Your task to perform on an android device: Search for duracell triple a on costco, select the first entry, add it to the cart, then select checkout. Image 0: 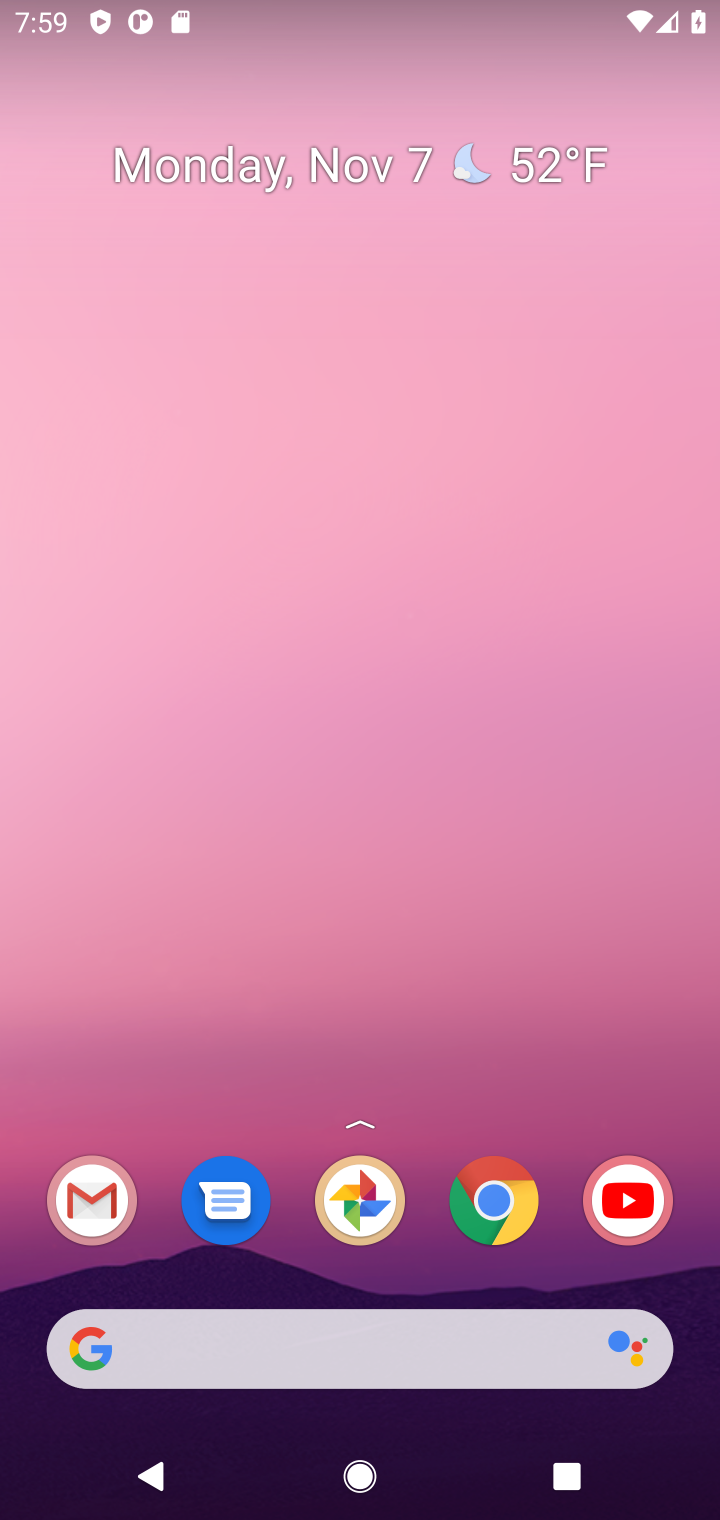
Step 0: click (494, 1223)
Your task to perform on an android device: Search for duracell triple a on costco, select the first entry, add it to the cart, then select checkout. Image 1: 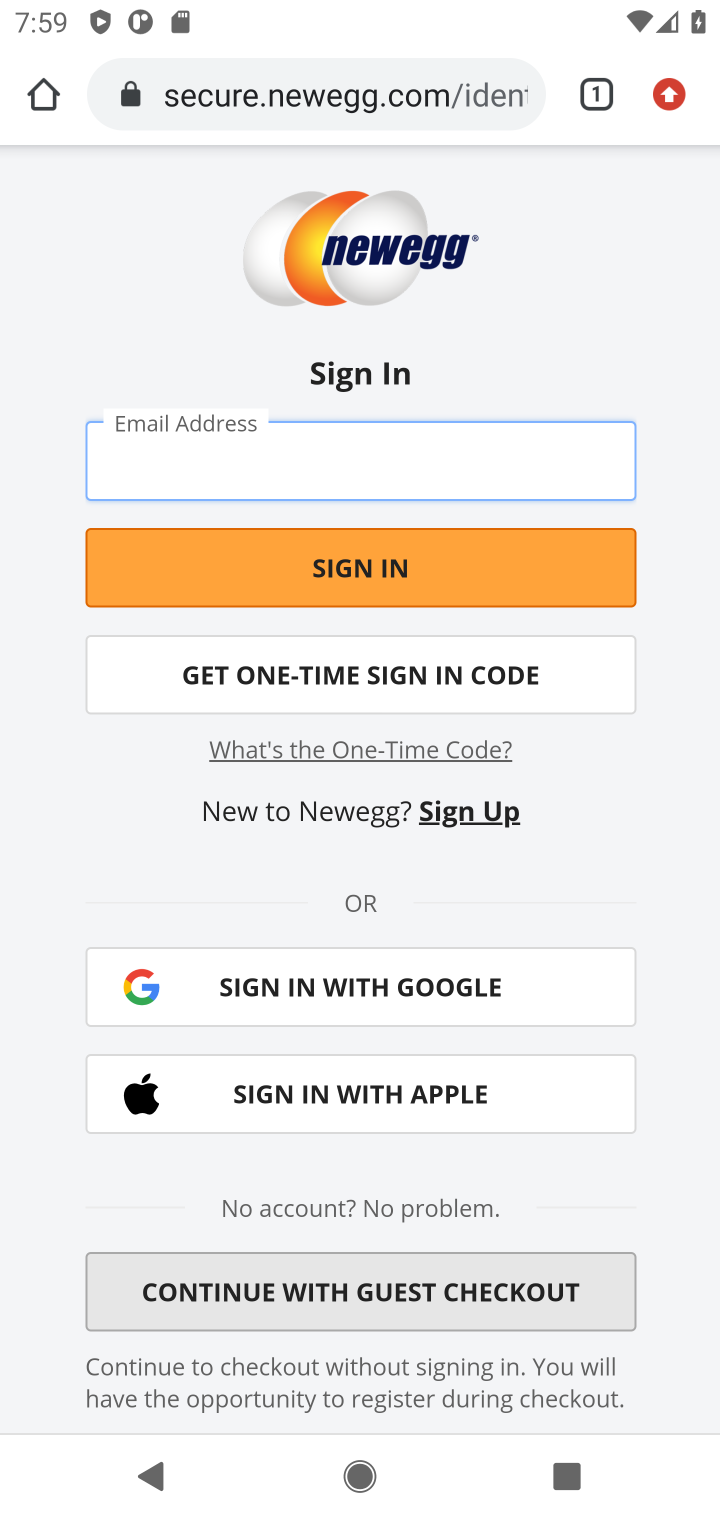
Step 1: click (375, 95)
Your task to perform on an android device: Search for duracell triple a on costco, select the first entry, add it to the cart, then select checkout. Image 2: 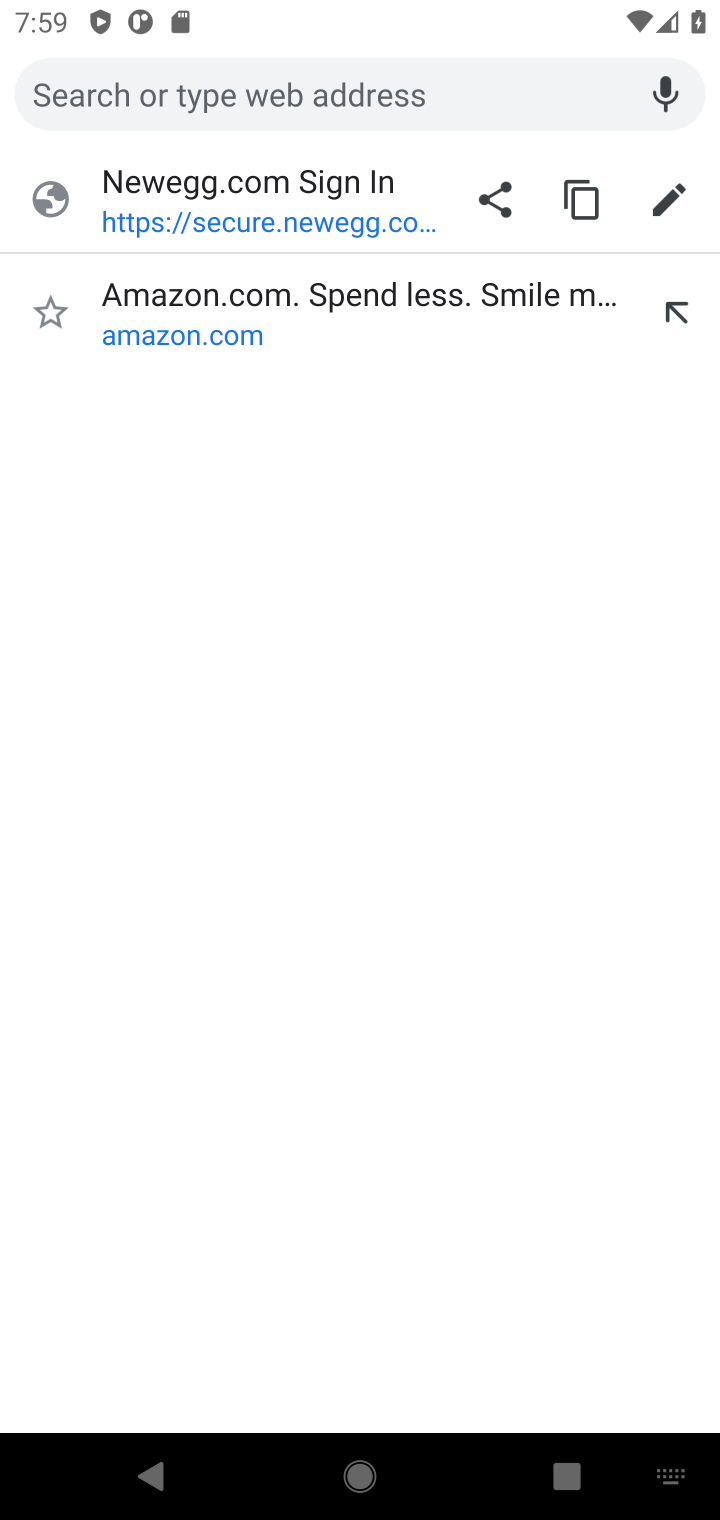
Step 2: type "costco"
Your task to perform on an android device: Search for duracell triple a on costco, select the first entry, add it to the cart, then select checkout. Image 3: 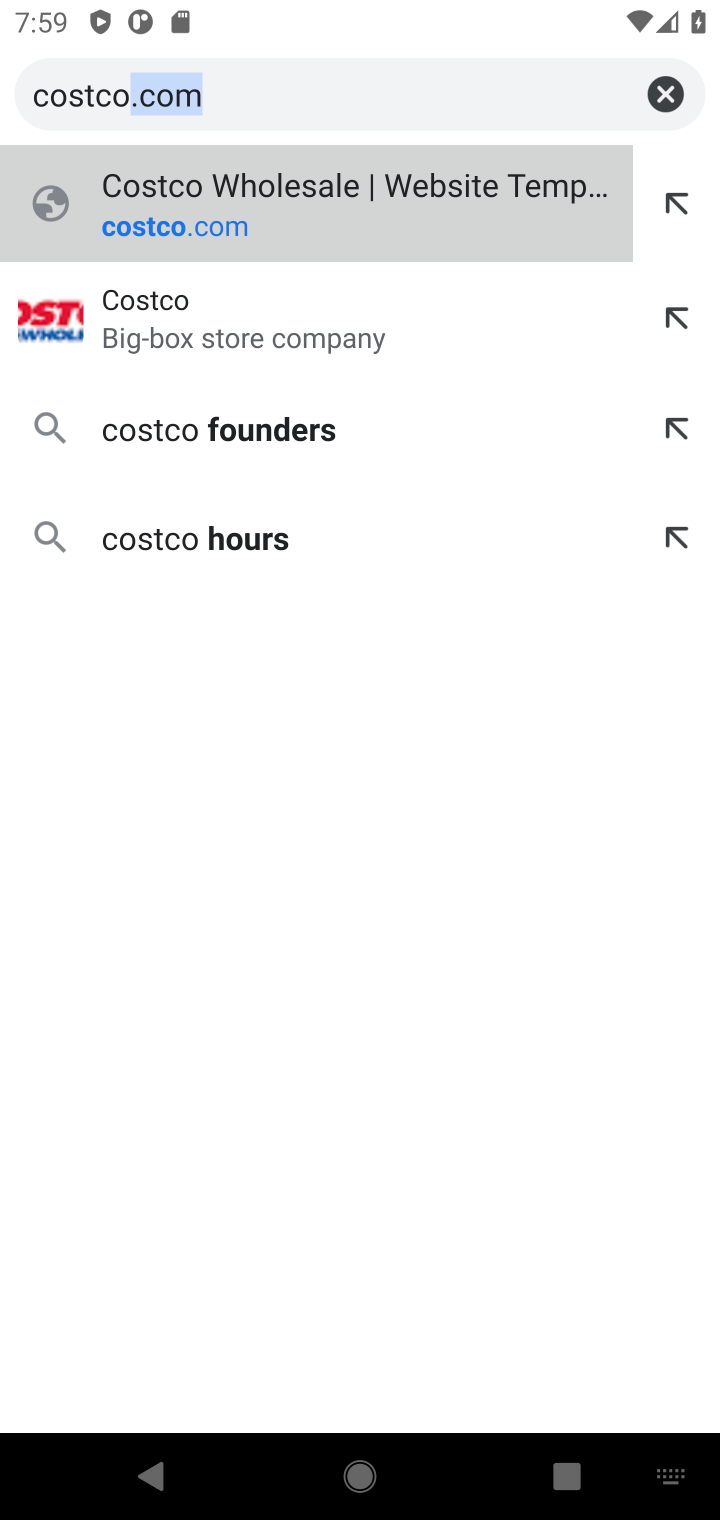
Step 3: press enter
Your task to perform on an android device: Search for duracell triple a on costco, select the first entry, add it to the cart, then select checkout. Image 4: 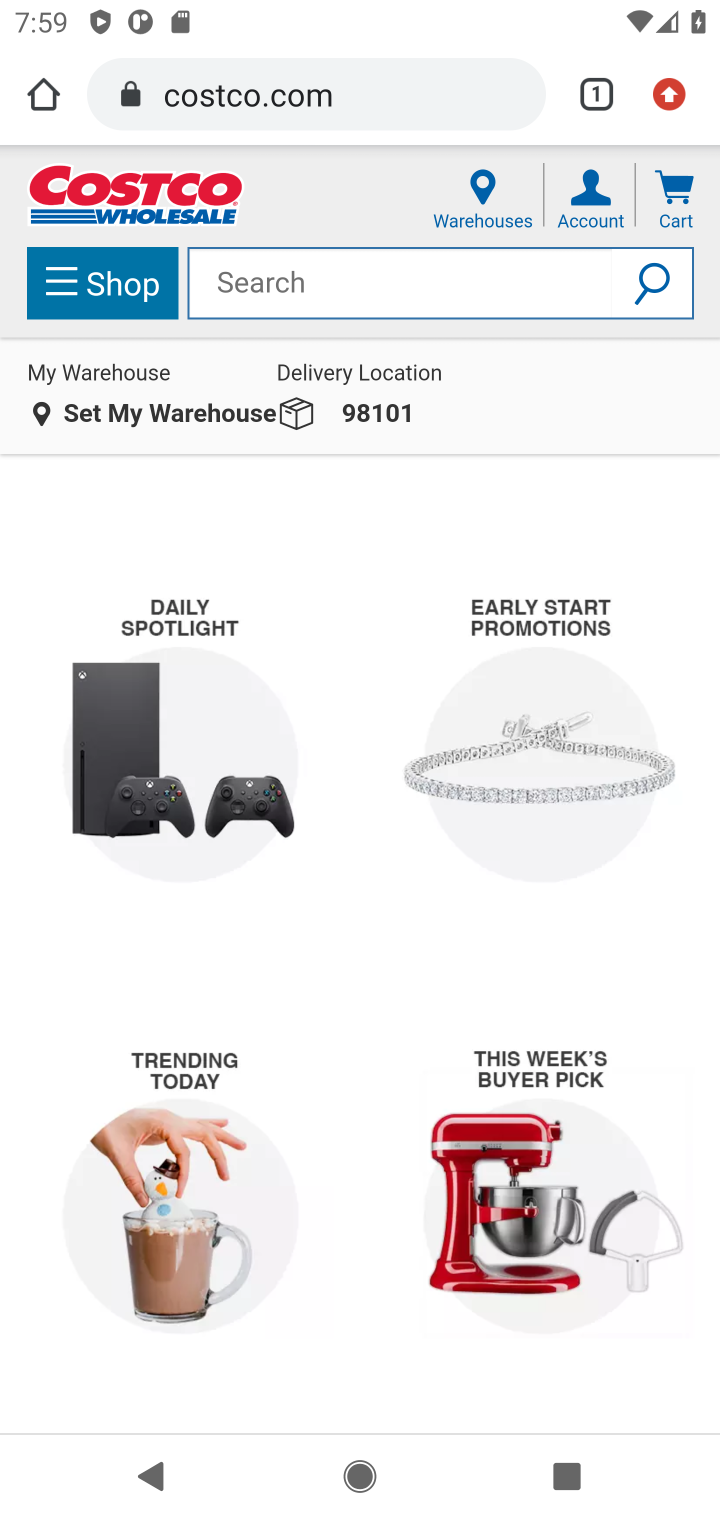
Step 4: click (379, 294)
Your task to perform on an android device: Search for duracell triple a on costco, select the first entry, add it to the cart, then select checkout. Image 5: 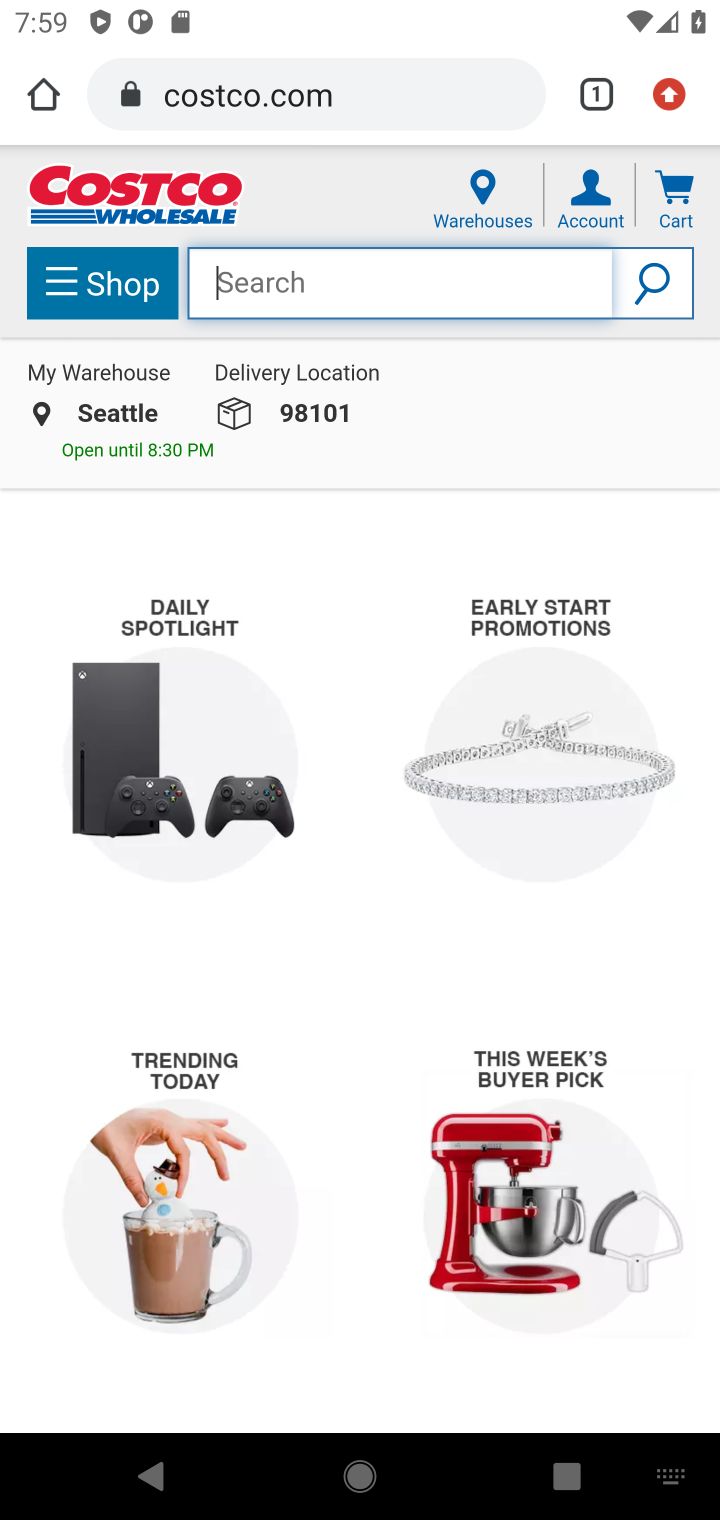
Step 5: type "duracell triple a"
Your task to perform on an android device: Search for duracell triple a on costco, select the first entry, add it to the cart, then select checkout. Image 6: 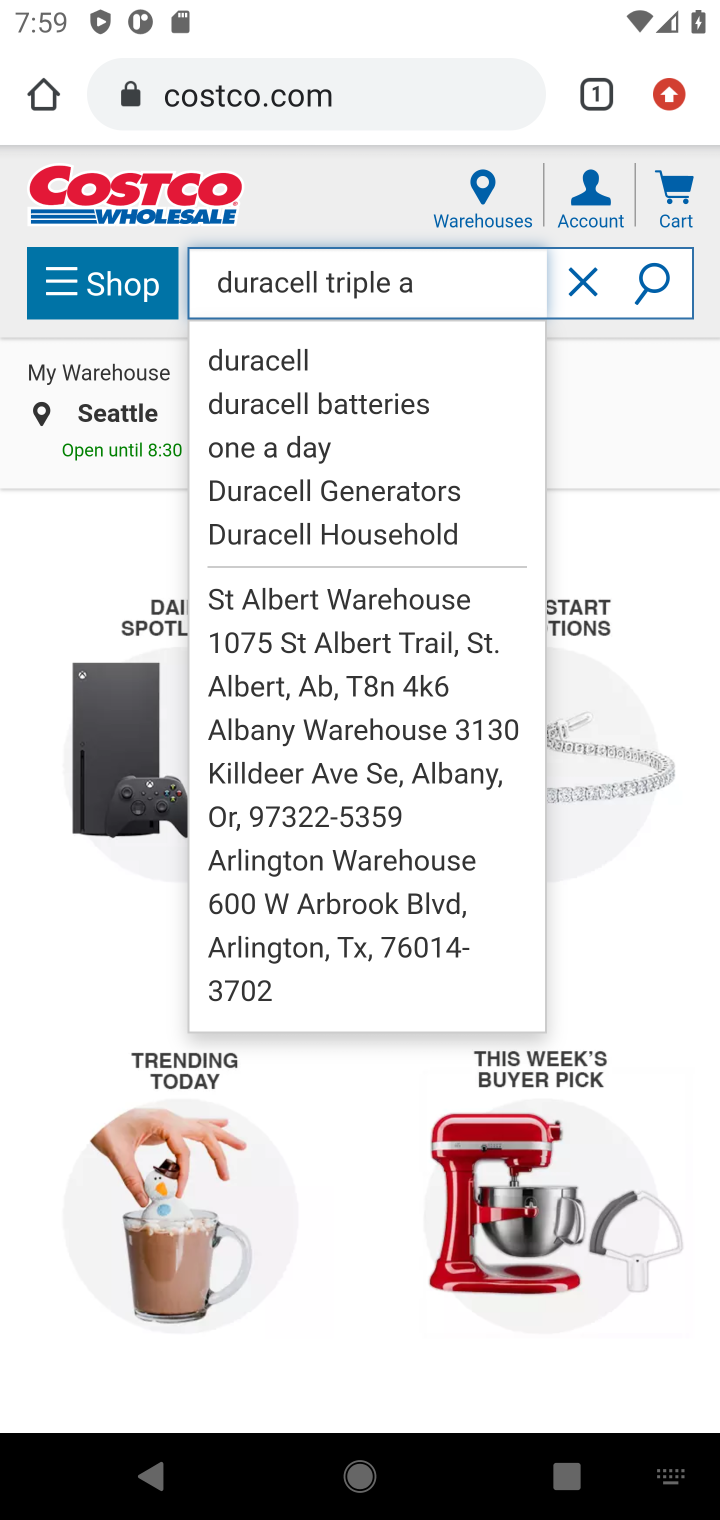
Step 6: press enter
Your task to perform on an android device: Search for duracell triple a on costco, select the first entry, add it to the cart, then select checkout. Image 7: 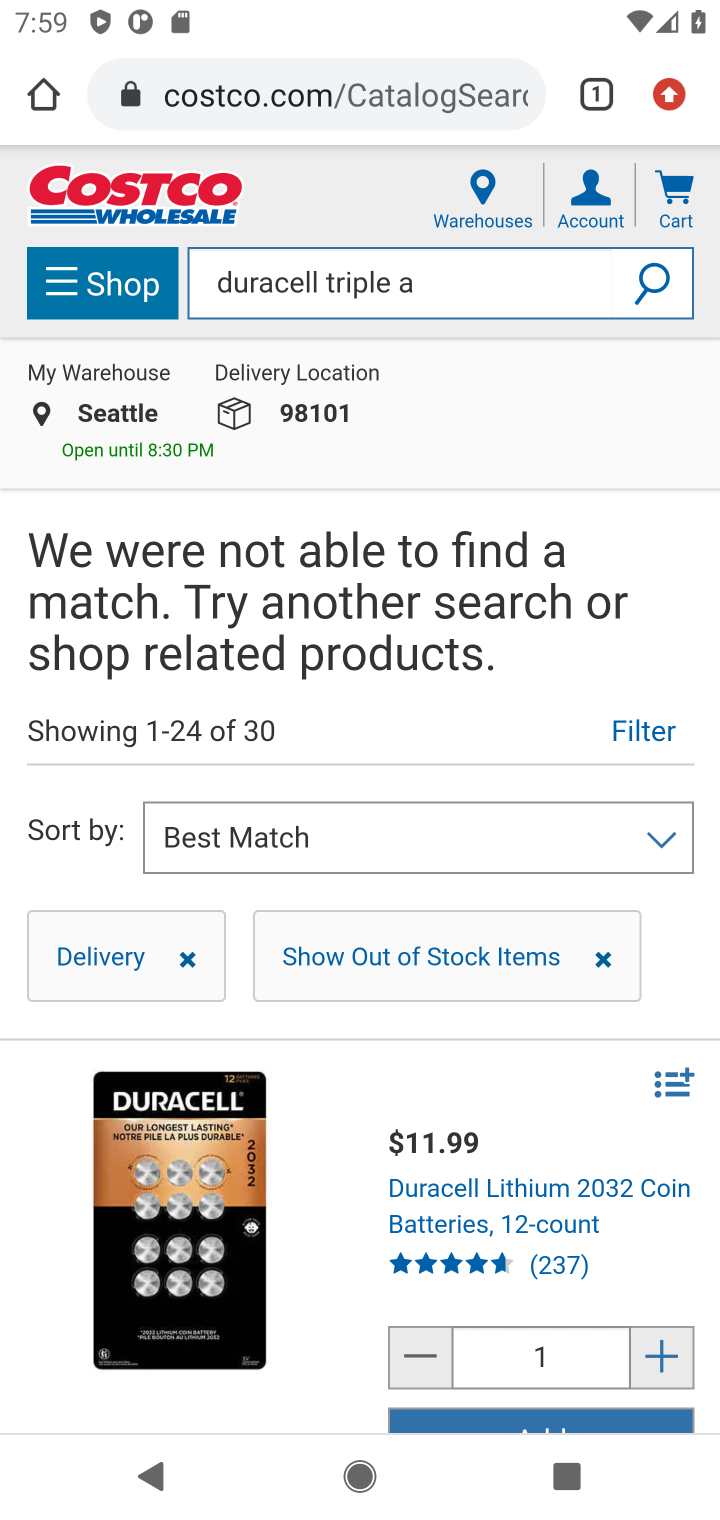
Step 7: click (462, 1218)
Your task to perform on an android device: Search for duracell triple a on costco, select the first entry, add it to the cart, then select checkout. Image 8: 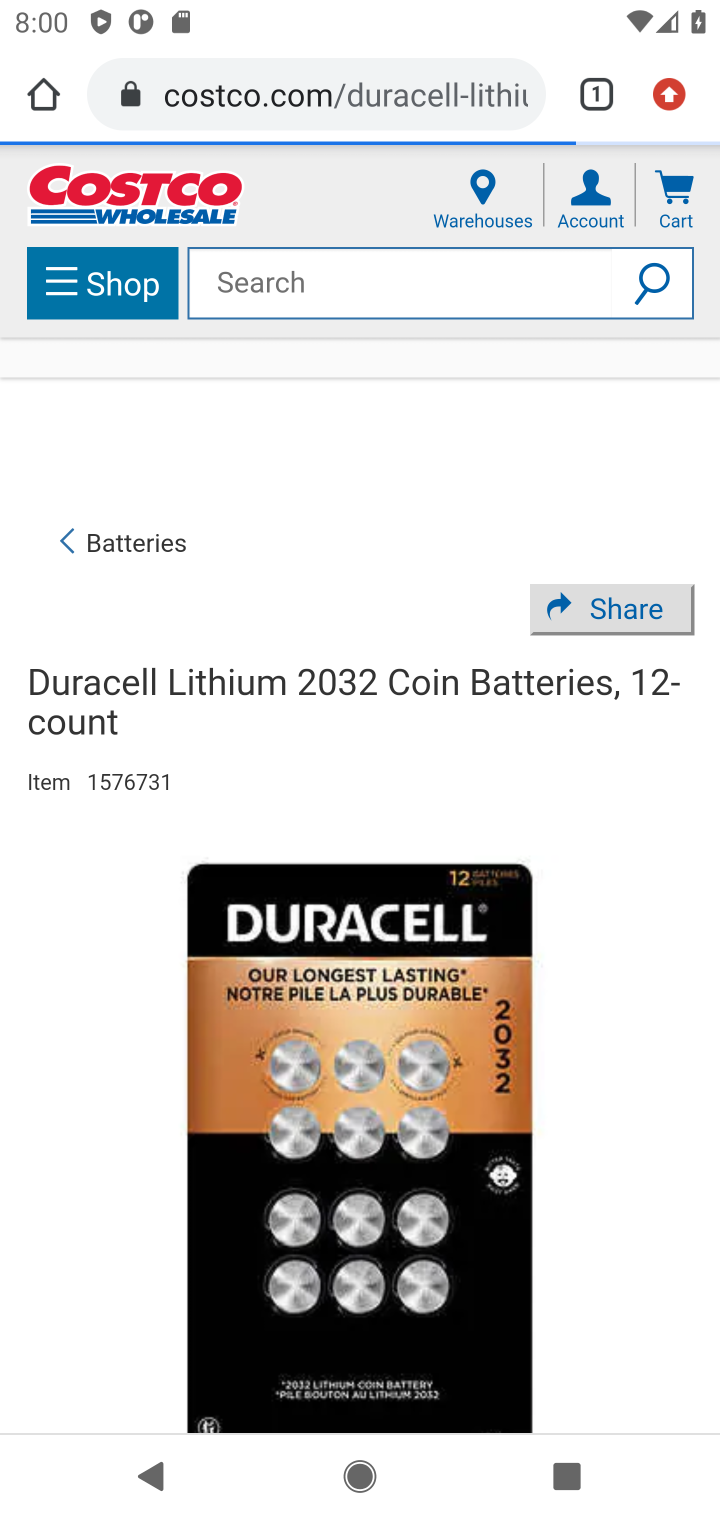
Step 8: drag from (617, 1352) to (593, 718)
Your task to perform on an android device: Search for duracell triple a on costco, select the first entry, add it to the cart, then select checkout. Image 9: 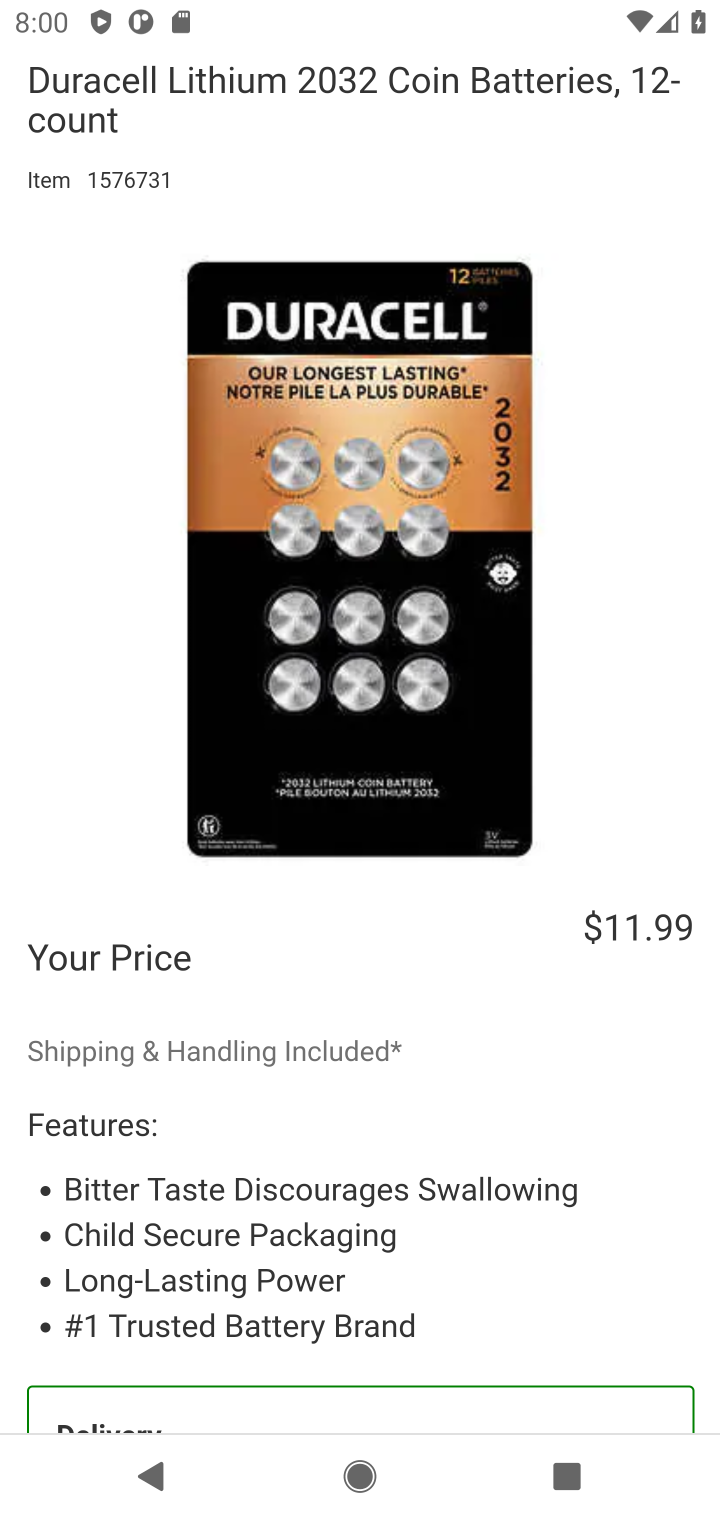
Step 9: drag from (562, 1240) to (559, 744)
Your task to perform on an android device: Search for duracell triple a on costco, select the first entry, add it to the cart, then select checkout. Image 10: 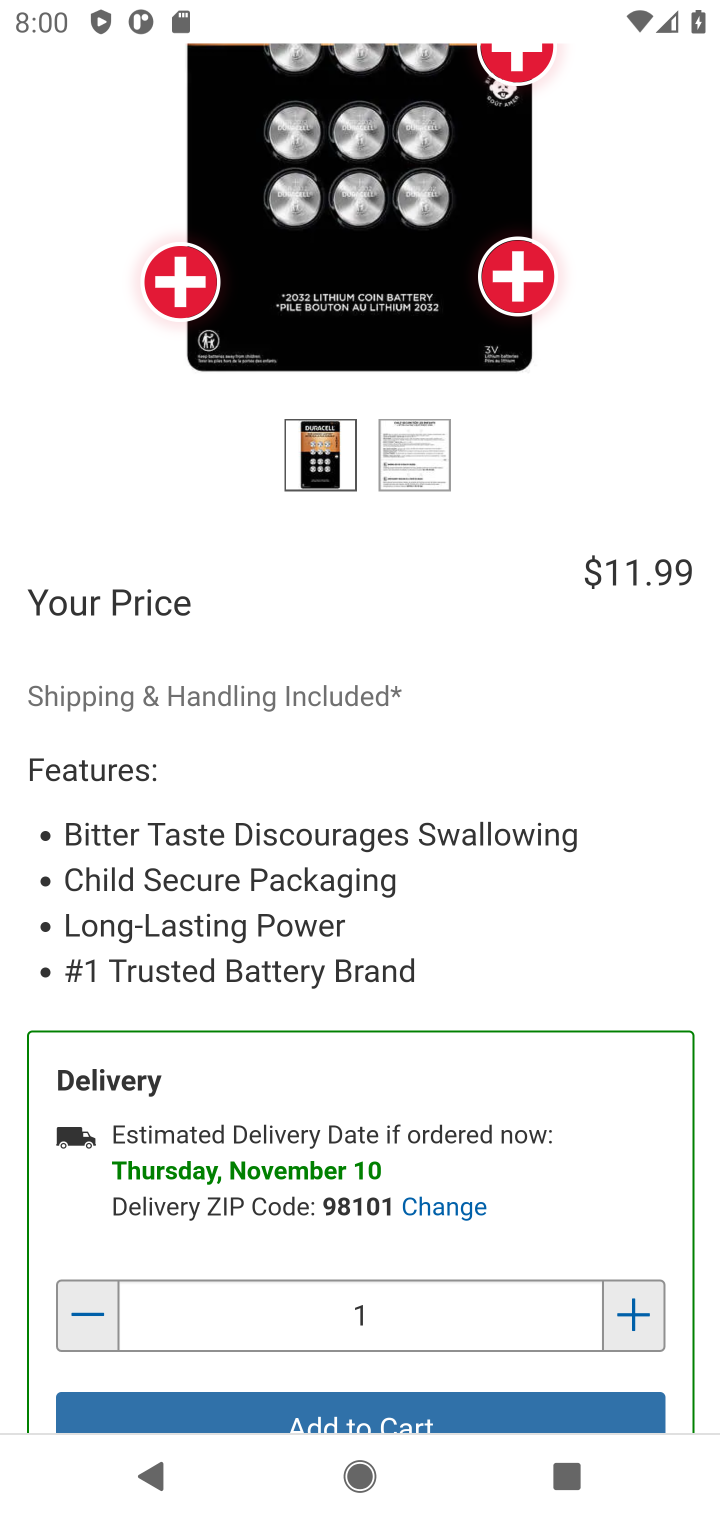
Step 10: drag from (415, 1367) to (418, 1152)
Your task to perform on an android device: Search for duracell triple a on costco, select the first entry, add it to the cart, then select checkout. Image 11: 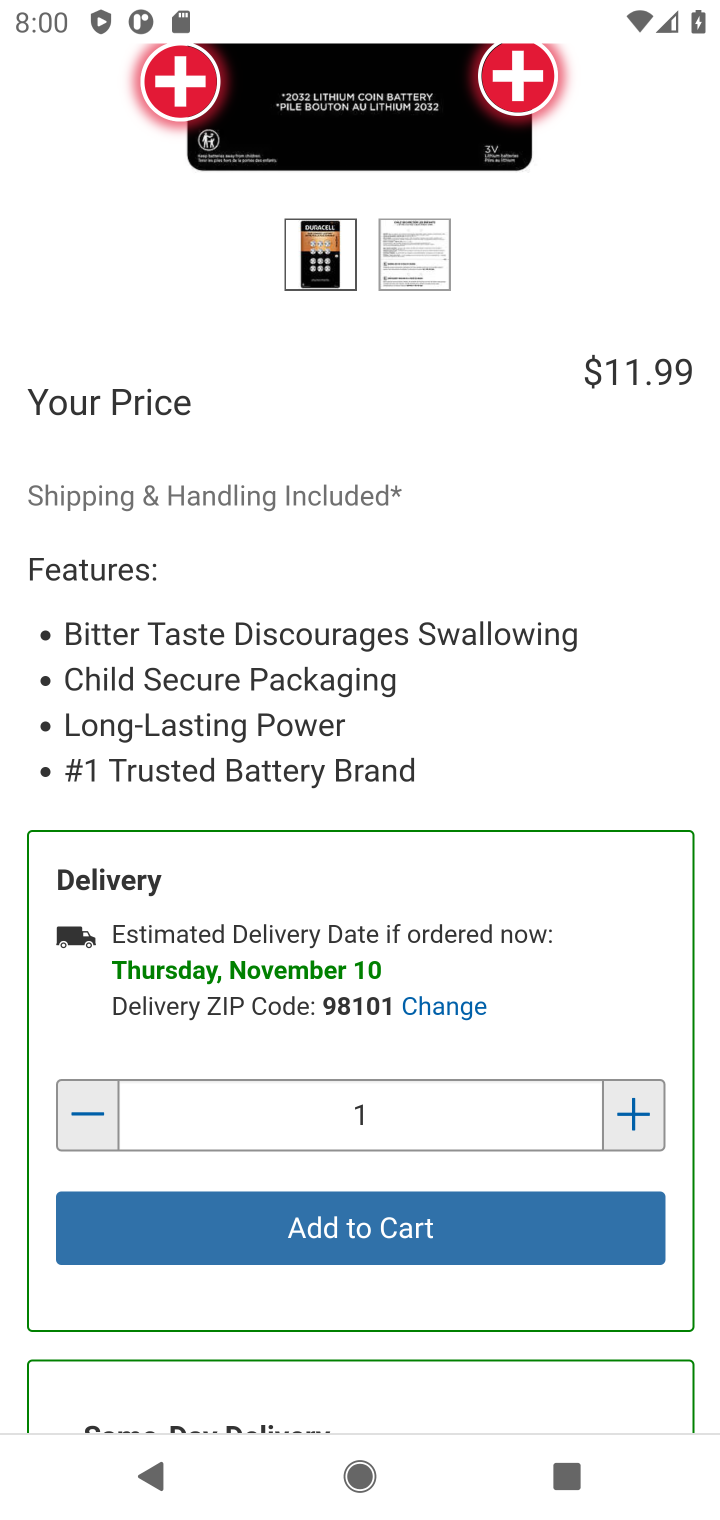
Step 11: click (422, 1254)
Your task to perform on an android device: Search for duracell triple a on costco, select the first entry, add it to the cart, then select checkout. Image 12: 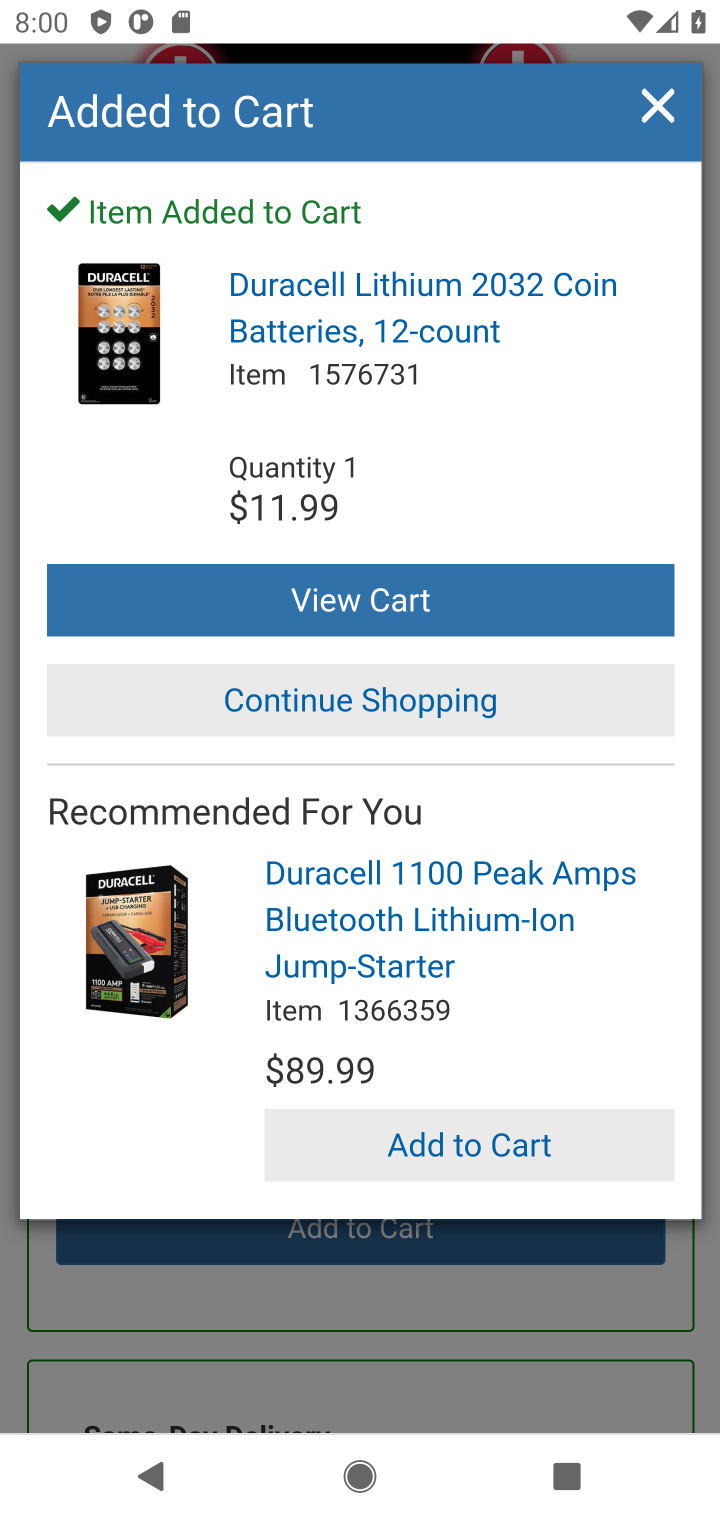
Step 12: click (474, 604)
Your task to perform on an android device: Search for duracell triple a on costco, select the first entry, add it to the cart, then select checkout. Image 13: 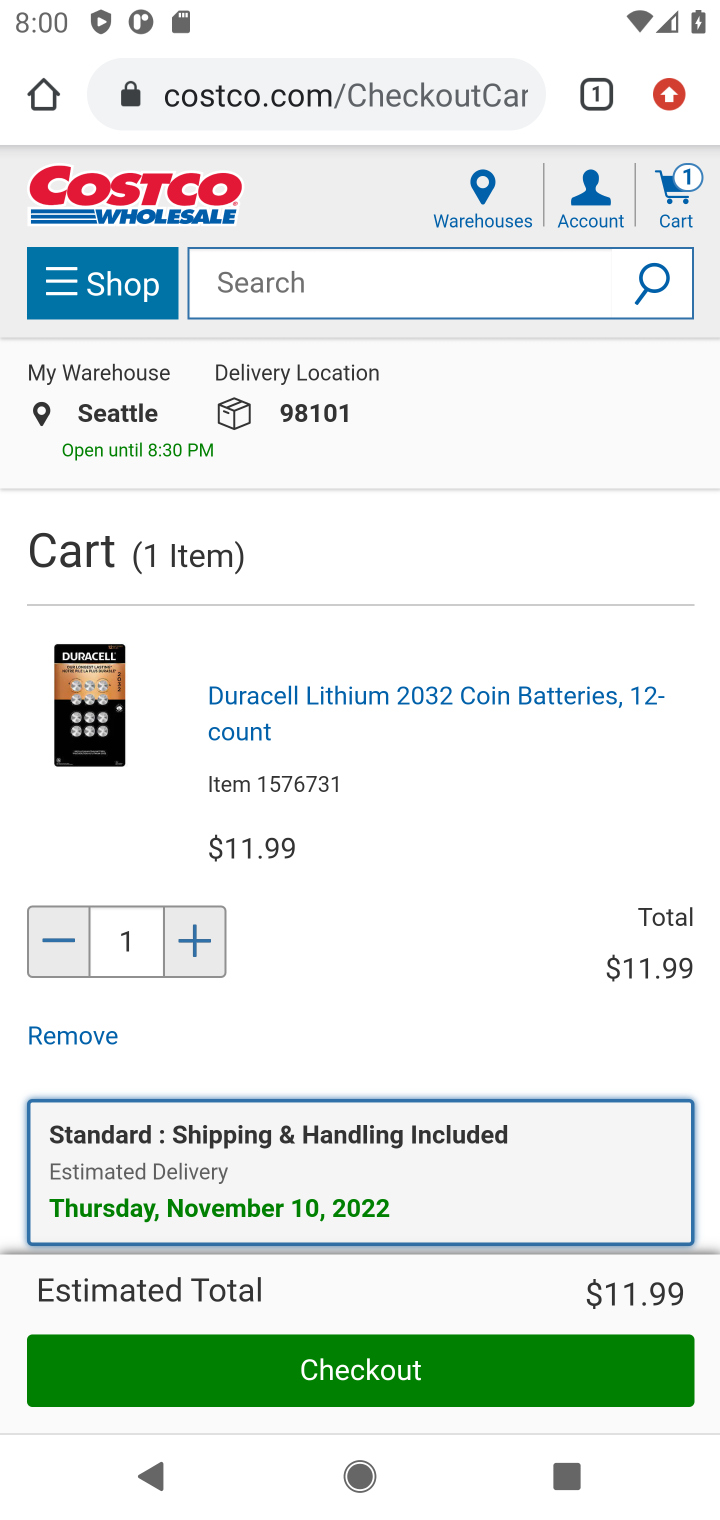
Step 13: click (364, 1405)
Your task to perform on an android device: Search for duracell triple a on costco, select the first entry, add it to the cart, then select checkout. Image 14: 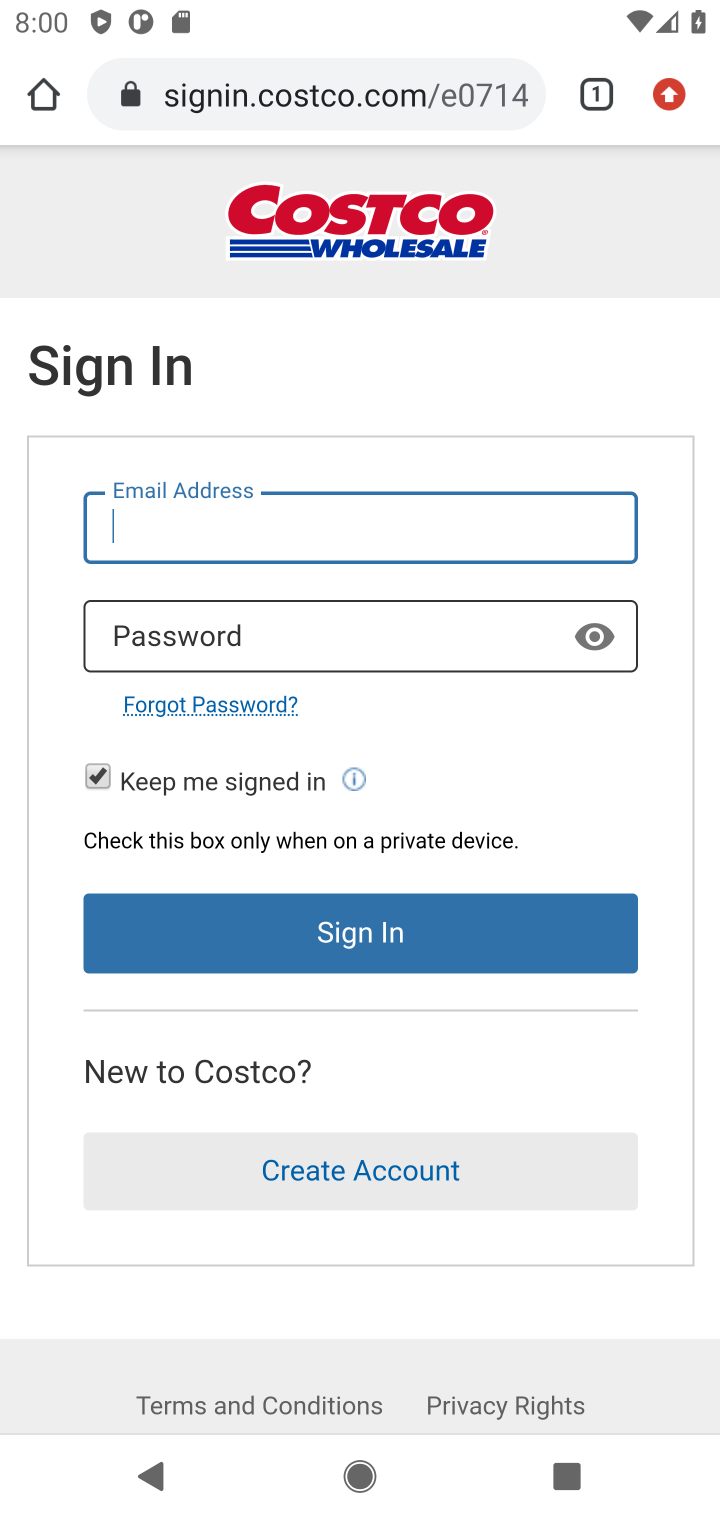
Step 14: task complete